Your task to perform on an android device: check battery use Image 0: 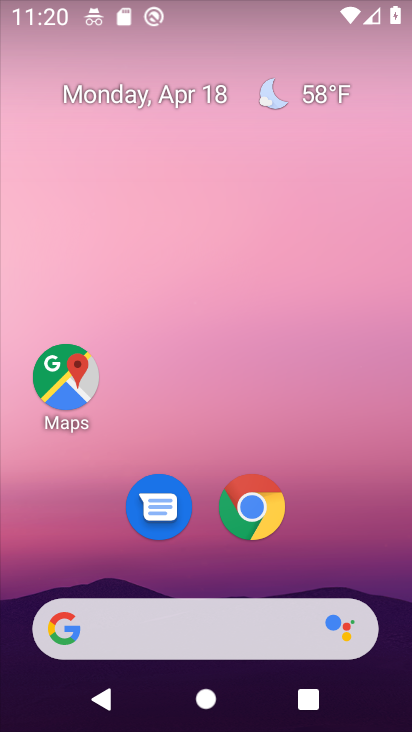
Step 0: drag from (240, 324) to (364, 0)
Your task to perform on an android device: check battery use Image 1: 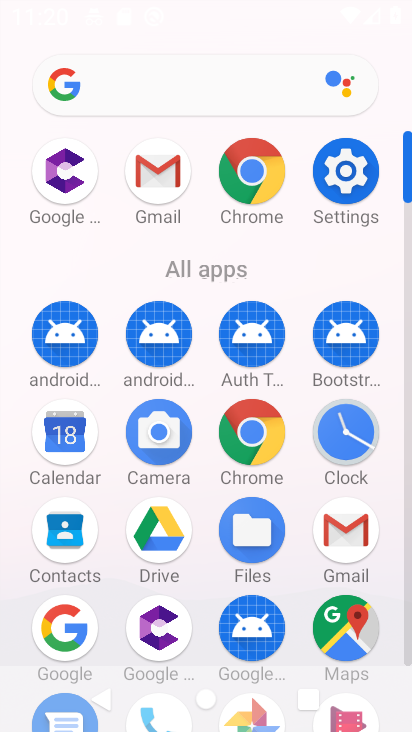
Step 1: click (335, 176)
Your task to perform on an android device: check battery use Image 2: 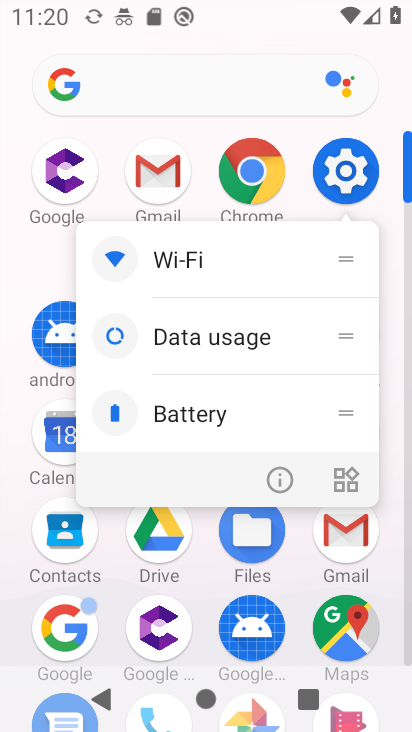
Step 2: click (346, 174)
Your task to perform on an android device: check battery use Image 3: 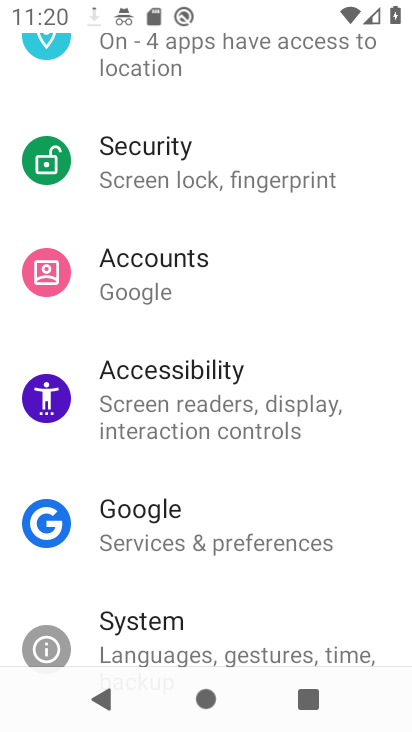
Step 3: drag from (256, 181) to (238, 474)
Your task to perform on an android device: check battery use Image 4: 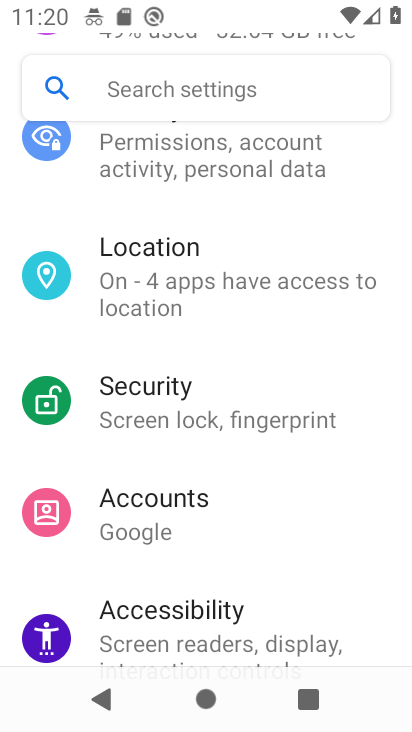
Step 4: drag from (231, 225) to (212, 557)
Your task to perform on an android device: check battery use Image 5: 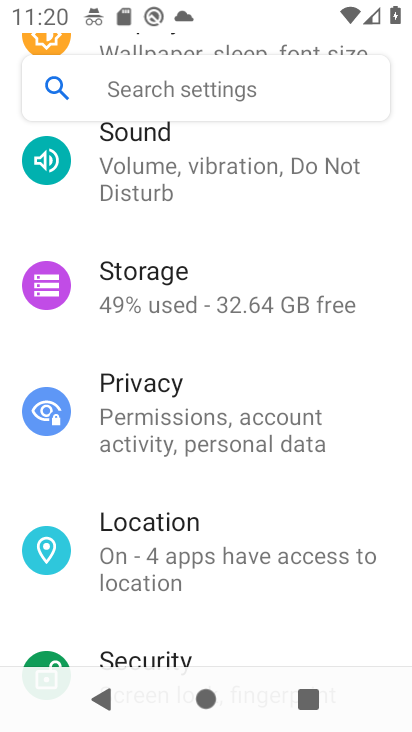
Step 5: drag from (250, 197) to (235, 504)
Your task to perform on an android device: check battery use Image 6: 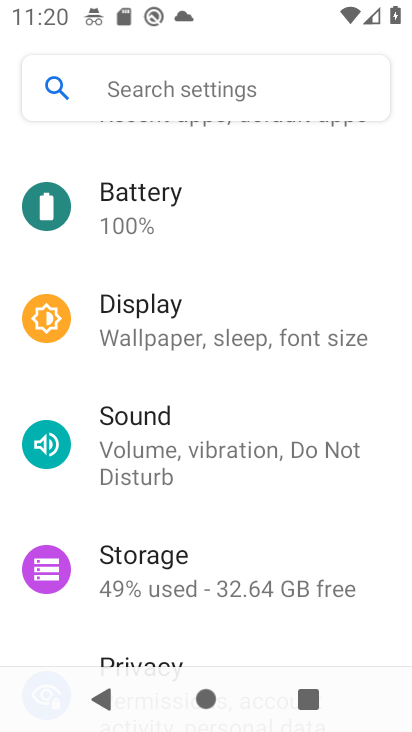
Step 6: drag from (296, 257) to (320, 598)
Your task to perform on an android device: check battery use Image 7: 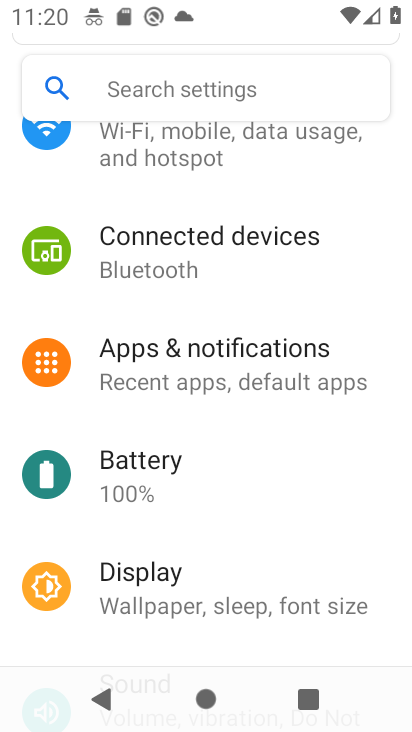
Step 7: click (170, 474)
Your task to perform on an android device: check battery use Image 8: 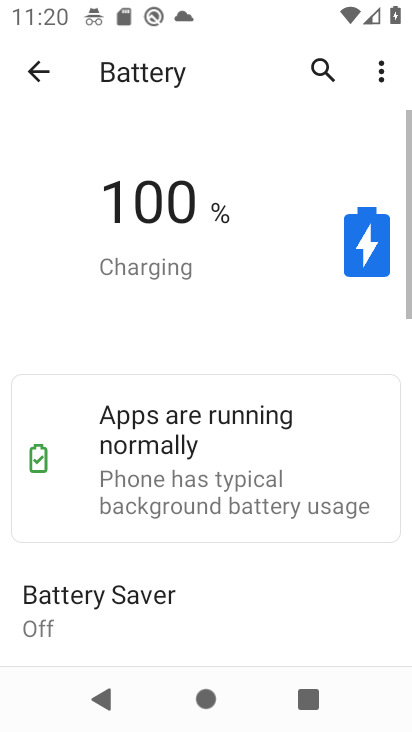
Step 8: click (375, 69)
Your task to perform on an android device: check battery use Image 9: 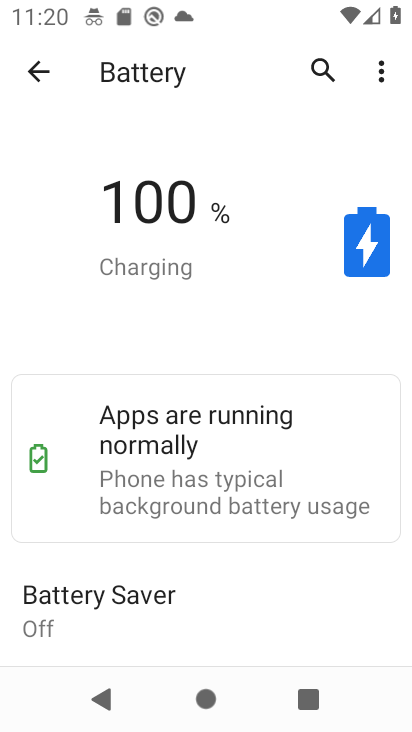
Step 9: click (380, 86)
Your task to perform on an android device: check battery use Image 10: 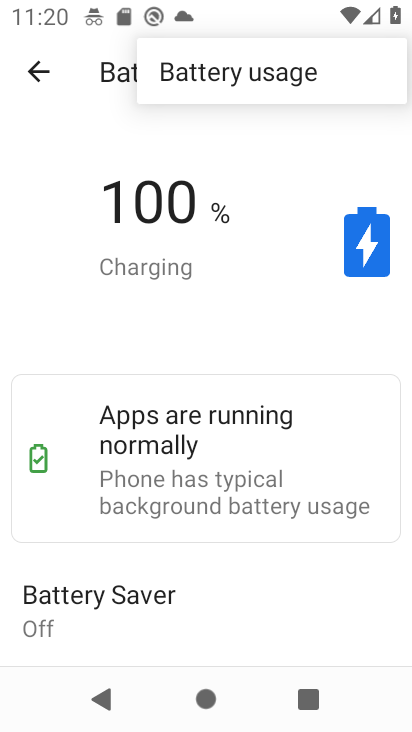
Step 10: click (289, 67)
Your task to perform on an android device: check battery use Image 11: 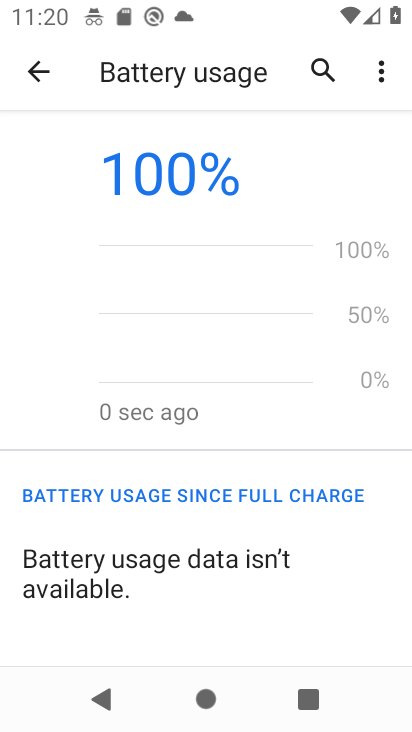
Step 11: task complete